Your task to perform on an android device: Open maps Image 0: 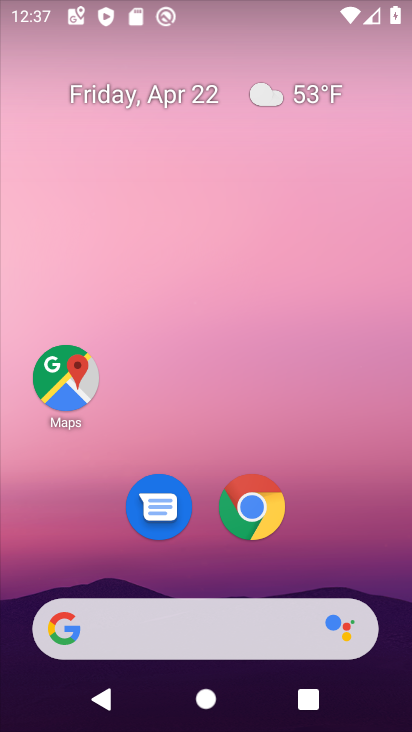
Step 0: click (71, 373)
Your task to perform on an android device: Open maps Image 1: 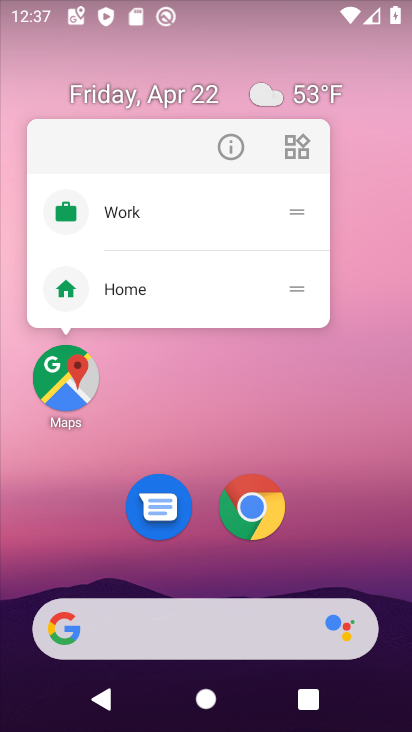
Step 1: click (67, 379)
Your task to perform on an android device: Open maps Image 2: 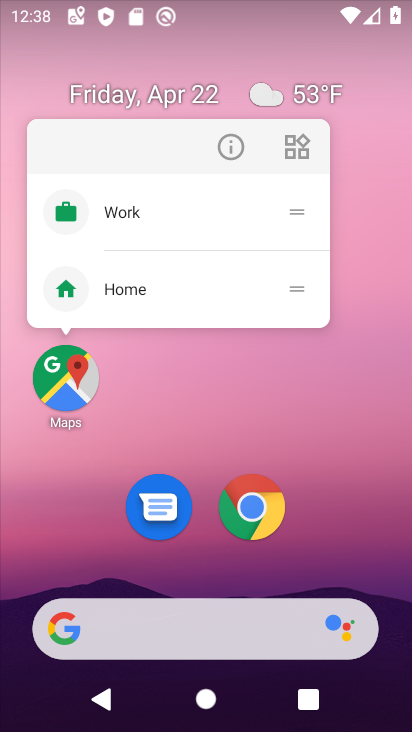
Step 2: click (67, 379)
Your task to perform on an android device: Open maps Image 3: 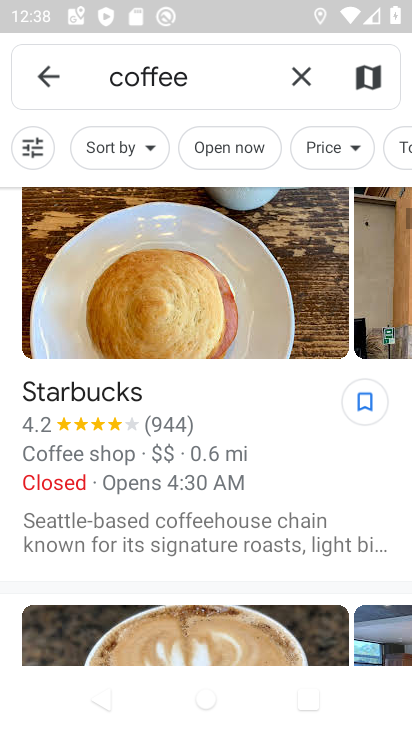
Step 3: click (46, 77)
Your task to perform on an android device: Open maps Image 4: 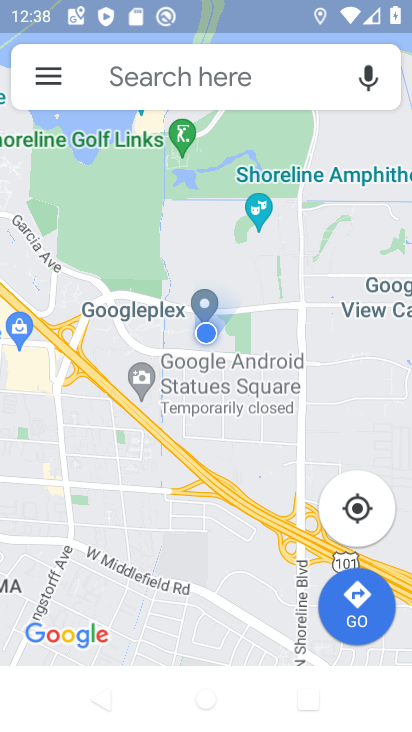
Step 4: task complete